Your task to perform on an android device: Go to Amazon Image 0: 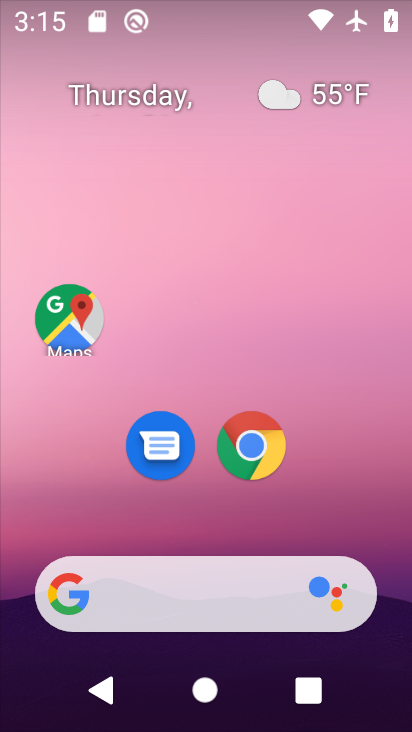
Step 0: click (267, 459)
Your task to perform on an android device: Go to Amazon Image 1: 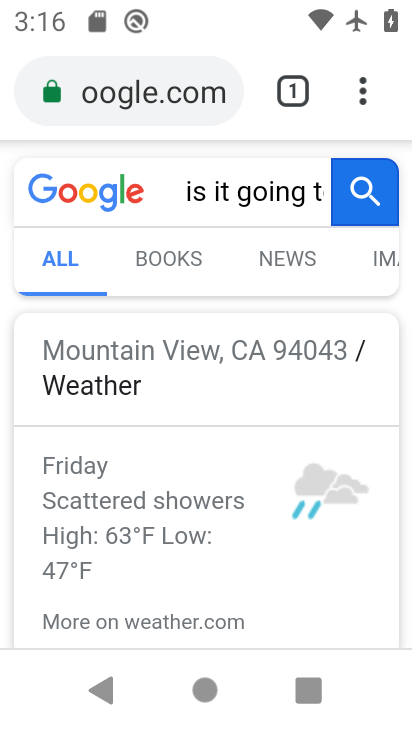
Step 1: click (236, 179)
Your task to perform on an android device: Go to Amazon Image 2: 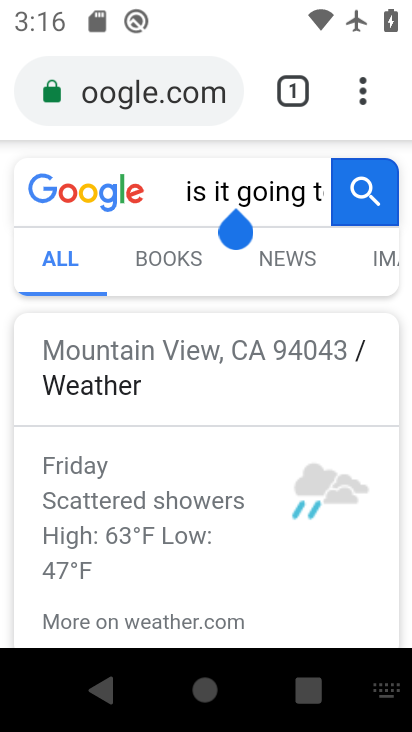
Step 2: click (267, 195)
Your task to perform on an android device: Go to Amazon Image 3: 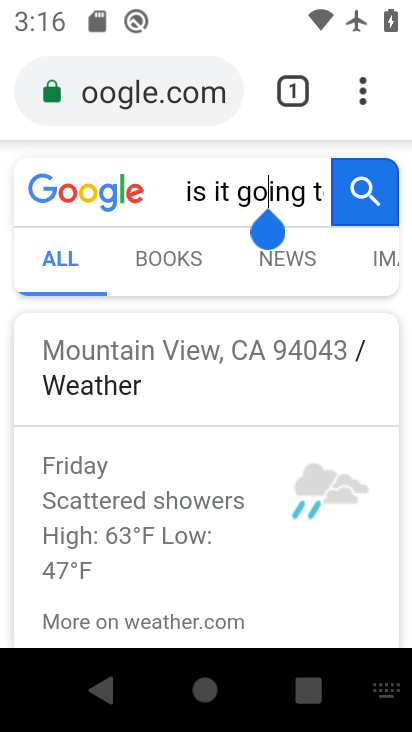
Step 3: click (165, 96)
Your task to perform on an android device: Go to Amazon Image 4: 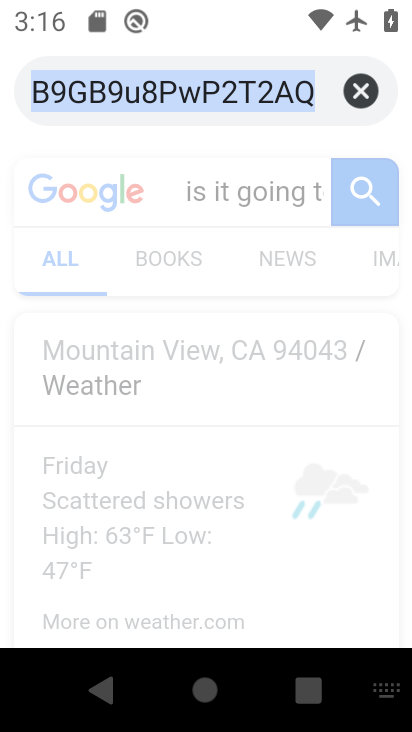
Step 4: type "amazon"
Your task to perform on an android device: Go to Amazon Image 5: 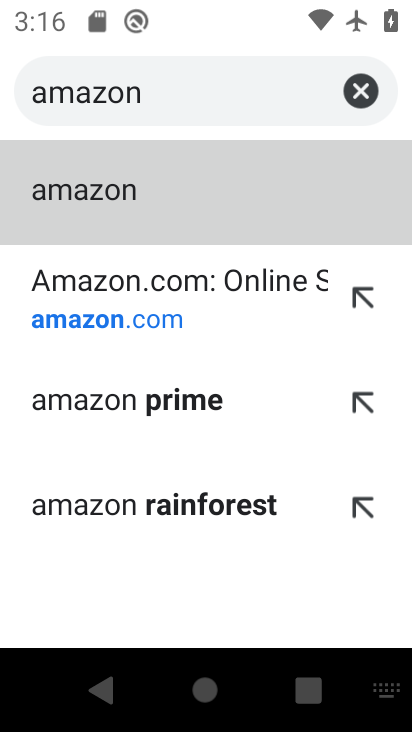
Step 5: click (111, 321)
Your task to perform on an android device: Go to Amazon Image 6: 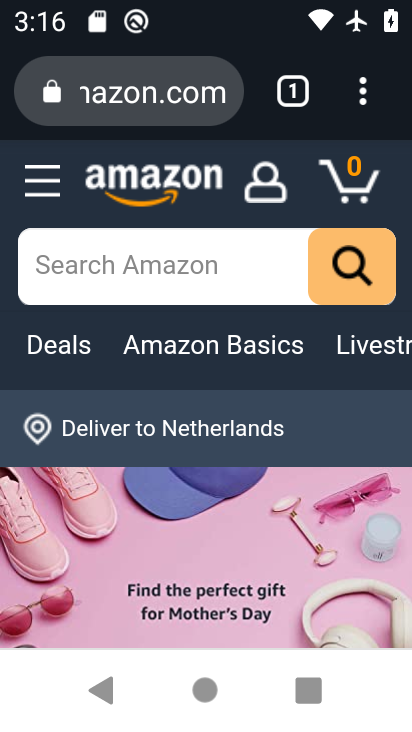
Step 6: task complete